Your task to perform on an android device: change the clock display to digital Image 0: 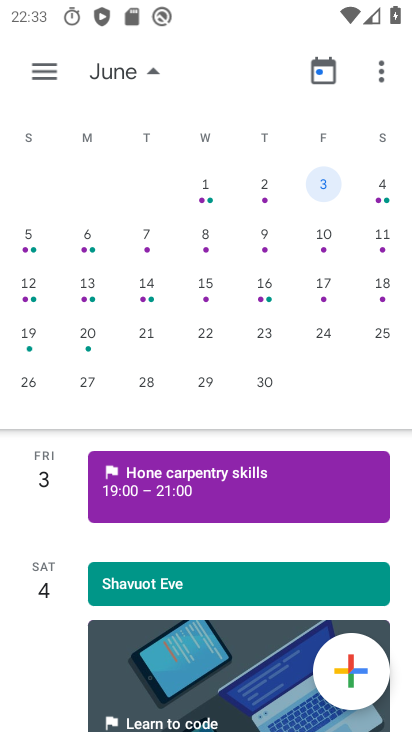
Step 0: press home button
Your task to perform on an android device: change the clock display to digital Image 1: 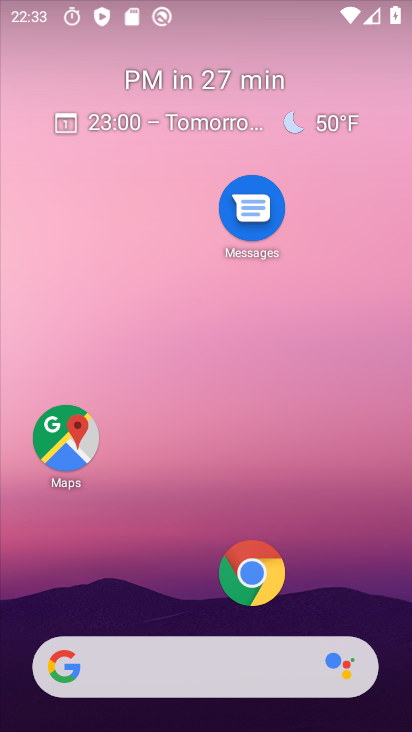
Step 1: drag from (187, 563) to (226, 163)
Your task to perform on an android device: change the clock display to digital Image 2: 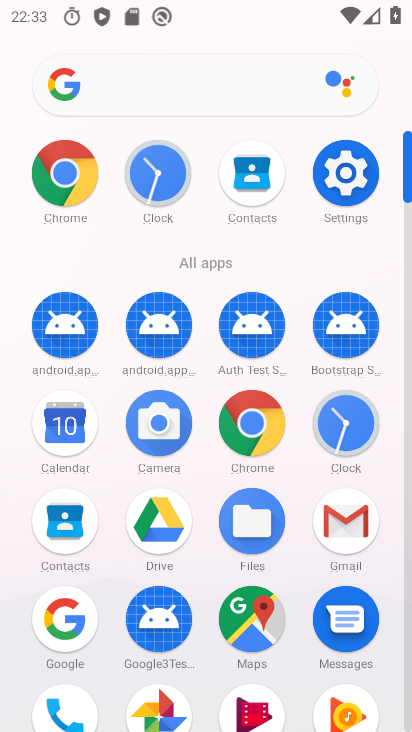
Step 2: click (349, 410)
Your task to perform on an android device: change the clock display to digital Image 3: 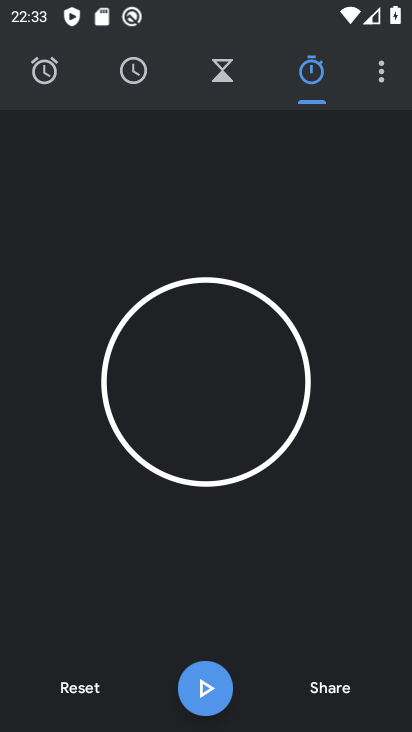
Step 3: click (378, 76)
Your task to perform on an android device: change the clock display to digital Image 4: 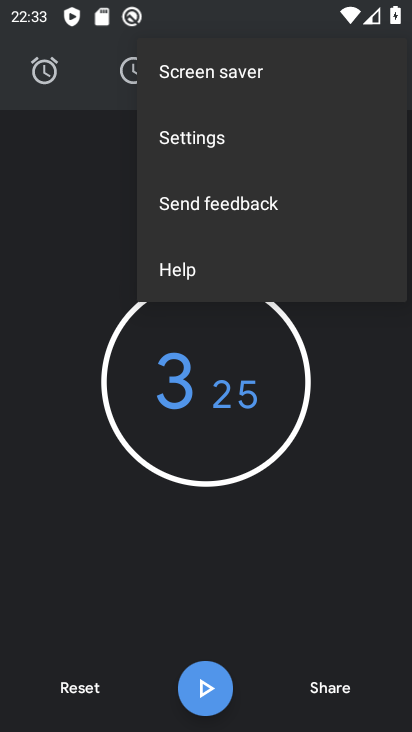
Step 4: click (217, 131)
Your task to perform on an android device: change the clock display to digital Image 5: 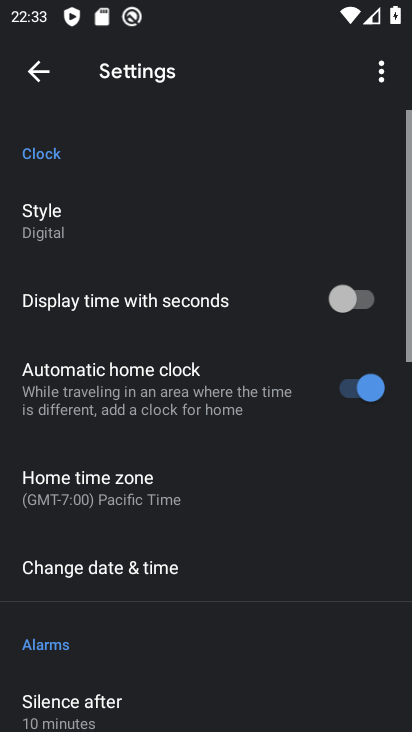
Step 5: click (140, 206)
Your task to perform on an android device: change the clock display to digital Image 6: 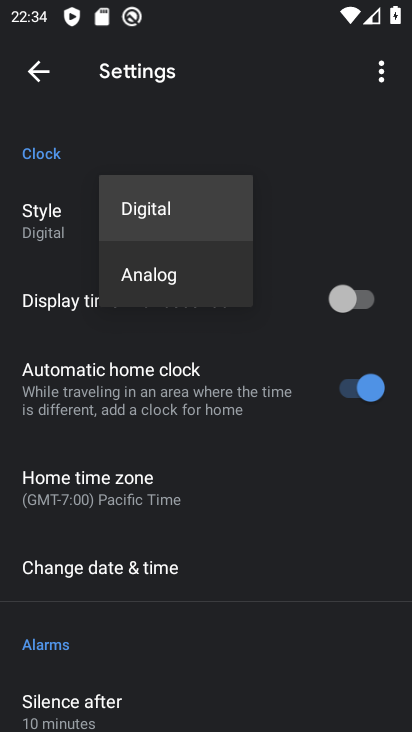
Step 6: click (146, 212)
Your task to perform on an android device: change the clock display to digital Image 7: 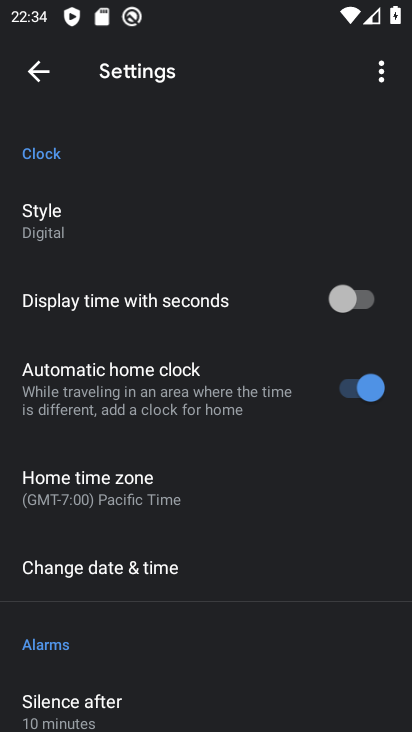
Step 7: task complete